Your task to perform on an android device: Search for sushi restaurants on Maps Image 0: 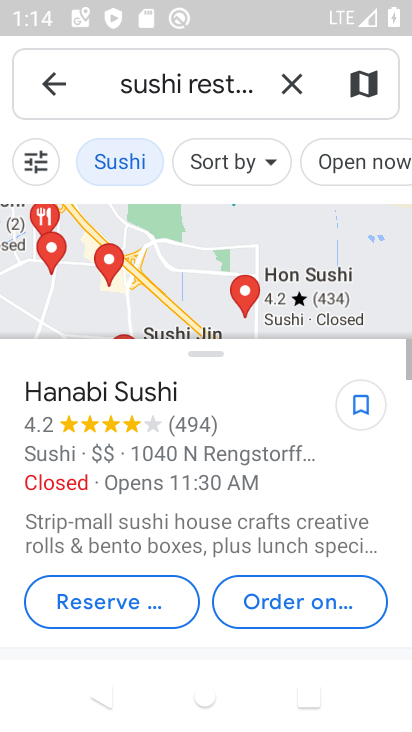
Step 0: press home button
Your task to perform on an android device: Search for sushi restaurants on Maps Image 1: 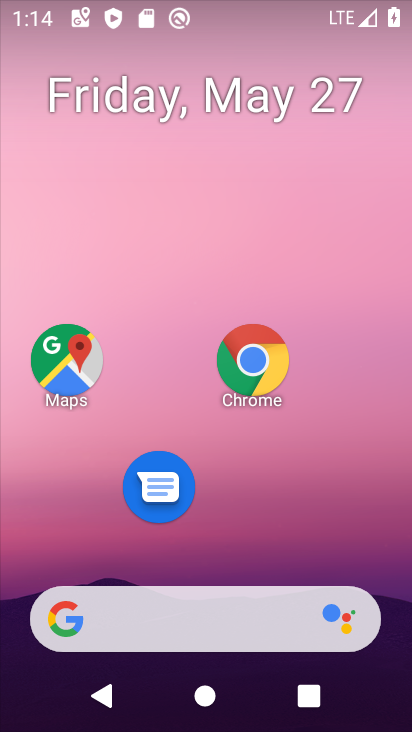
Step 1: click (58, 361)
Your task to perform on an android device: Search for sushi restaurants on Maps Image 2: 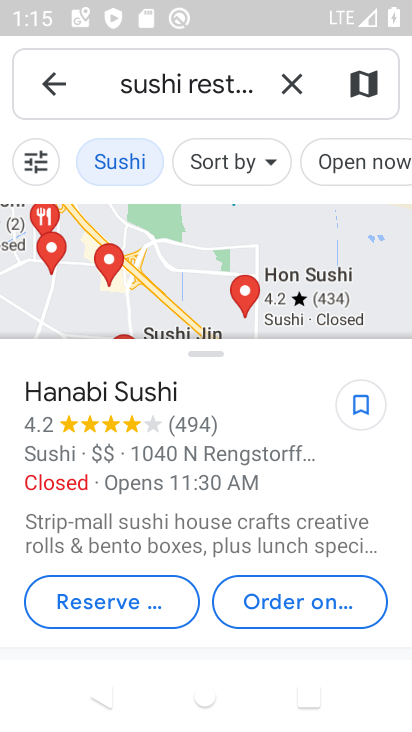
Step 2: task complete